Your task to perform on an android device: see sites visited before in the chrome app Image 0: 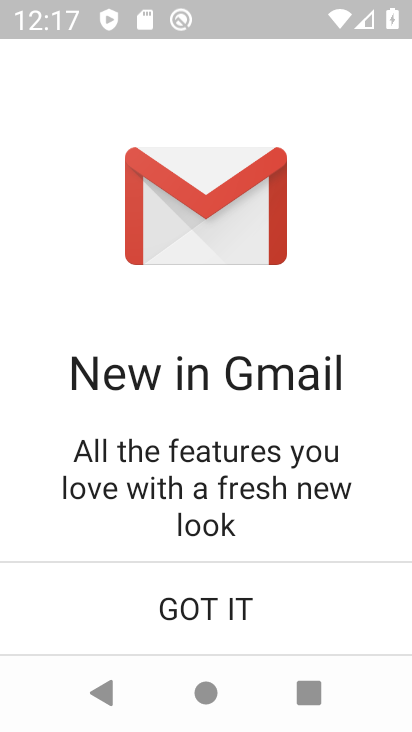
Step 0: press home button
Your task to perform on an android device: see sites visited before in the chrome app Image 1: 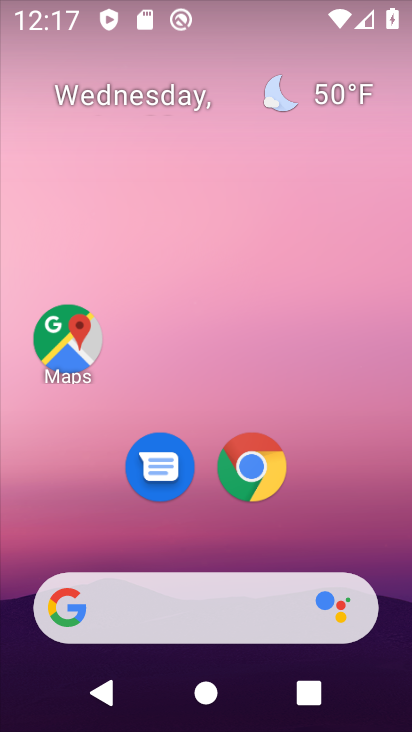
Step 1: click (248, 488)
Your task to perform on an android device: see sites visited before in the chrome app Image 2: 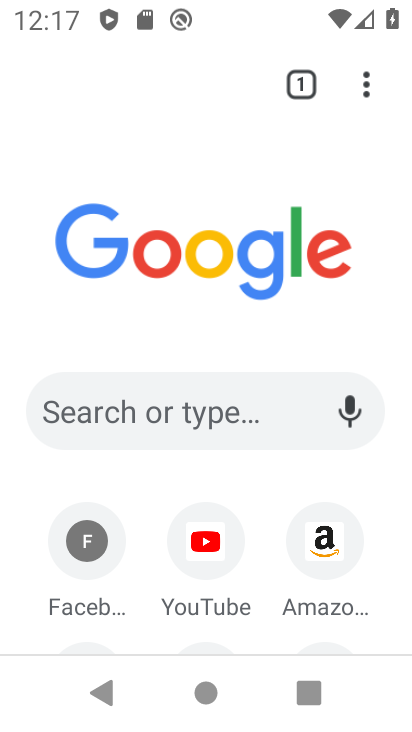
Step 2: click (367, 86)
Your task to perform on an android device: see sites visited before in the chrome app Image 3: 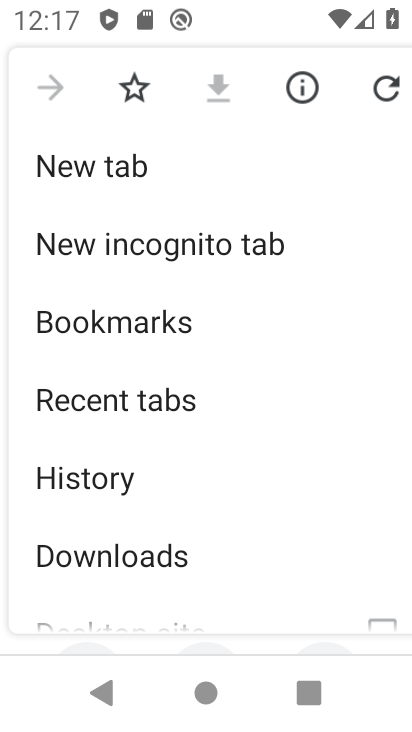
Step 3: click (124, 478)
Your task to perform on an android device: see sites visited before in the chrome app Image 4: 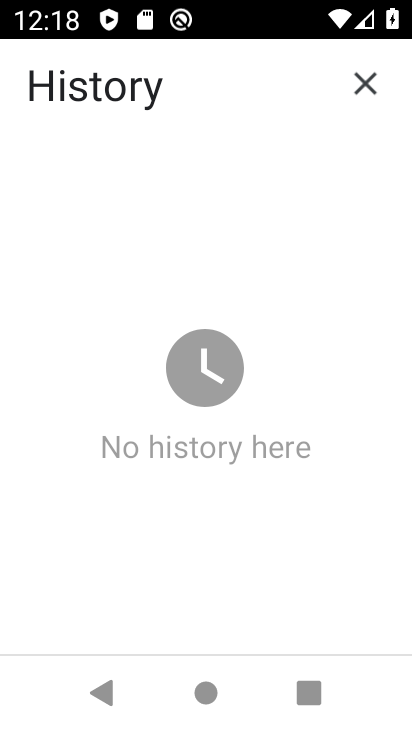
Step 4: task complete